Your task to perform on an android device: Open battery settings Image 0: 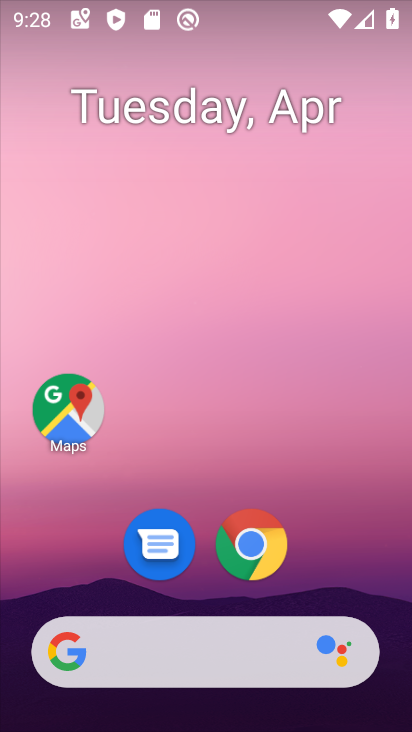
Step 0: drag from (319, 552) to (314, 30)
Your task to perform on an android device: Open battery settings Image 1: 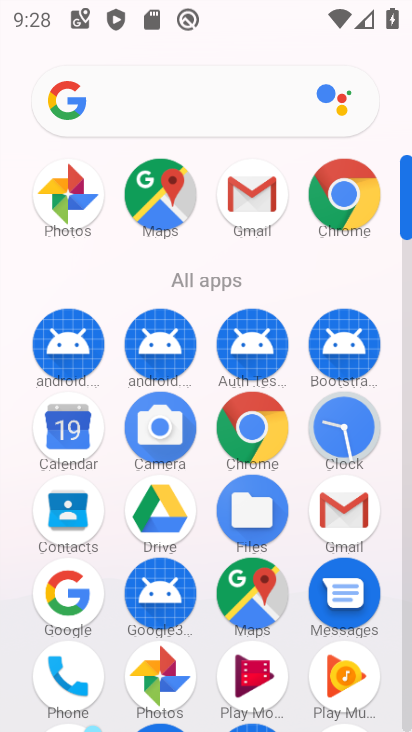
Step 1: drag from (308, 551) to (330, 225)
Your task to perform on an android device: Open battery settings Image 2: 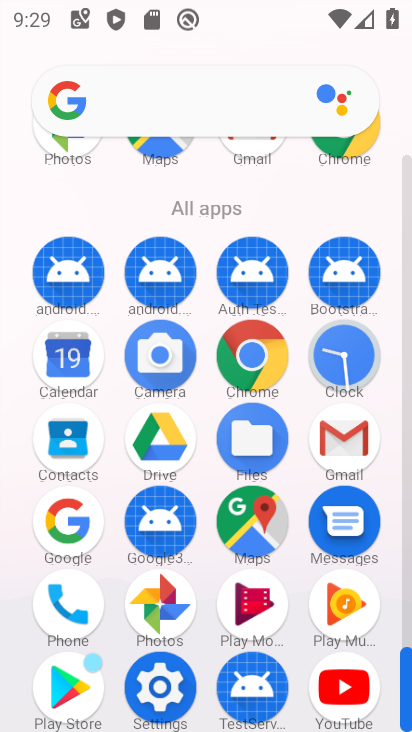
Step 2: drag from (306, 581) to (329, 372)
Your task to perform on an android device: Open battery settings Image 3: 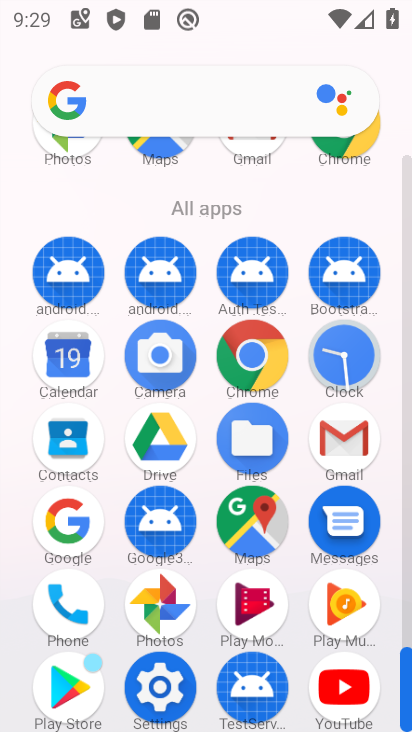
Step 3: click (160, 677)
Your task to perform on an android device: Open battery settings Image 4: 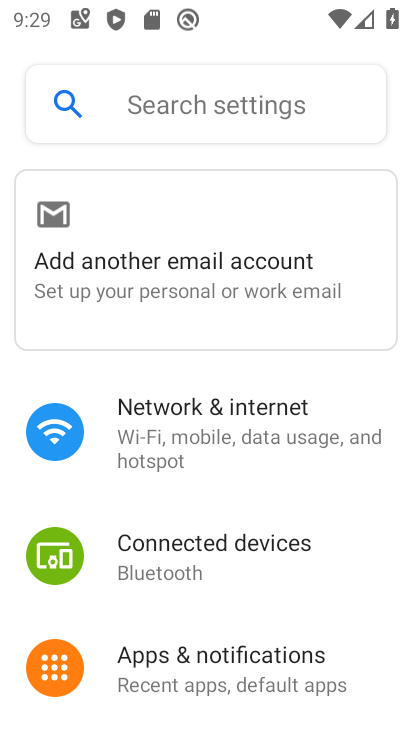
Step 4: drag from (214, 676) to (268, 233)
Your task to perform on an android device: Open battery settings Image 5: 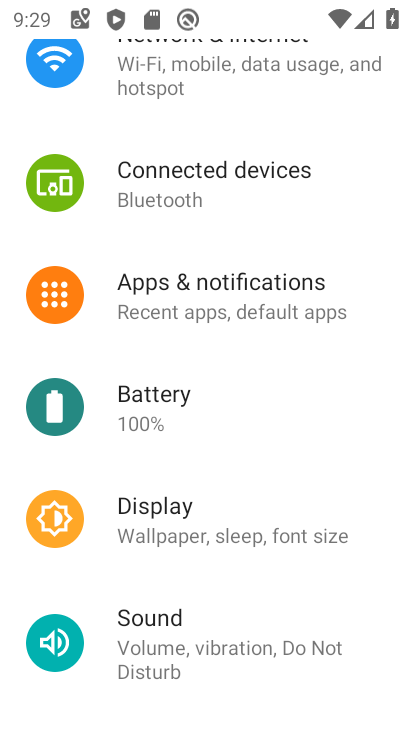
Step 5: click (170, 409)
Your task to perform on an android device: Open battery settings Image 6: 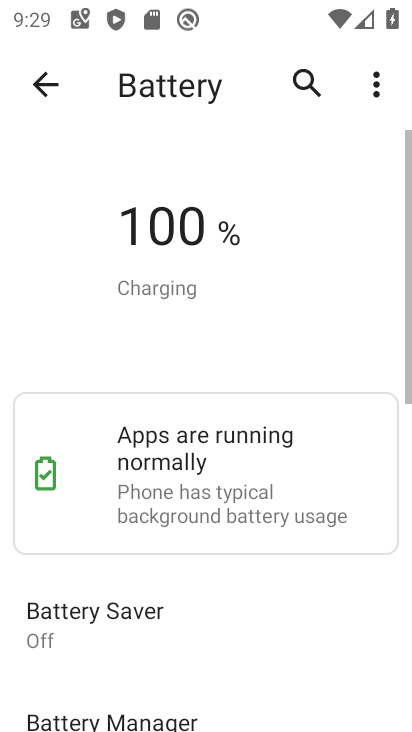
Step 6: task complete